Your task to perform on an android device: Open calendar and show me the first week of next month Image 0: 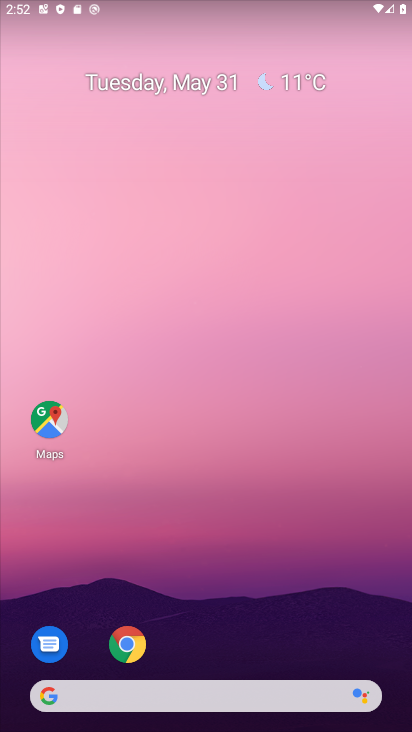
Step 0: drag from (272, 682) to (285, 9)
Your task to perform on an android device: Open calendar and show me the first week of next month Image 1: 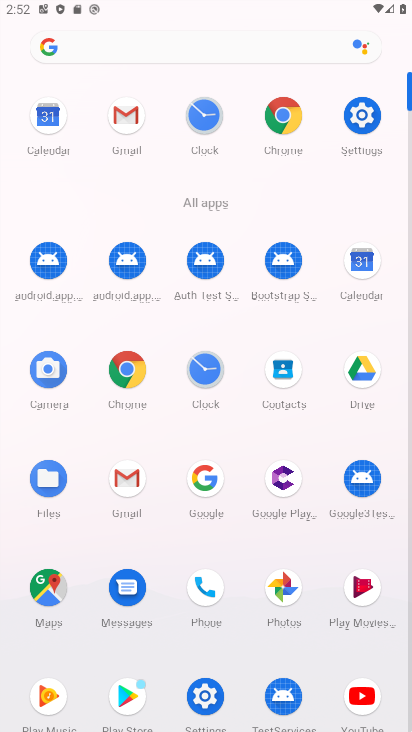
Step 1: click (55, 110)
Your task to perform on an android device: Open calendar and show me the first week of next month Image 2: 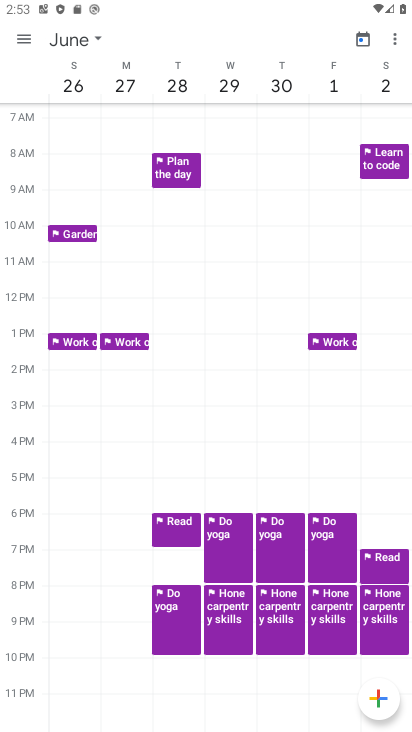
Step 2: click (92, 38)
Your task to perform on an android device: Open calendar and show me the first week of next month Image 3: 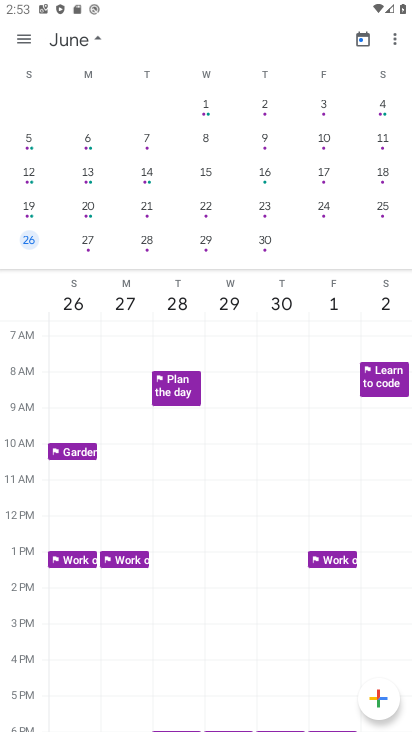
Step 3: click (267, 107)
Your task to perform on an android device: Open calendar and show me the first week of next month Image 4: 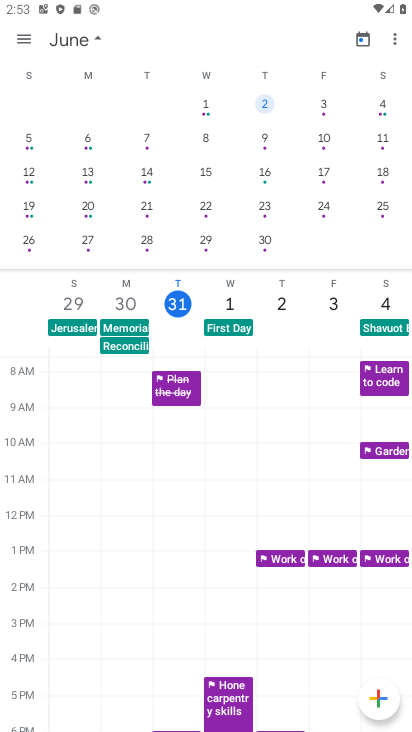
Step 4: task complete